Your task to perform on an android device: change the clock display to analog Image 0: 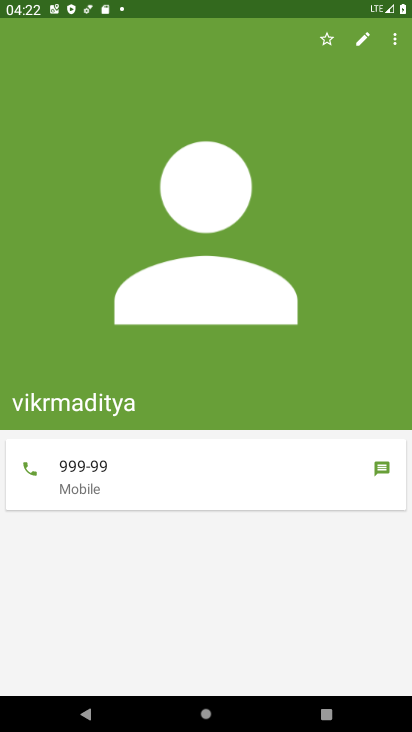
Step 0: press home button
Your task to perform on an android device: change the clock display to analog Image 1: 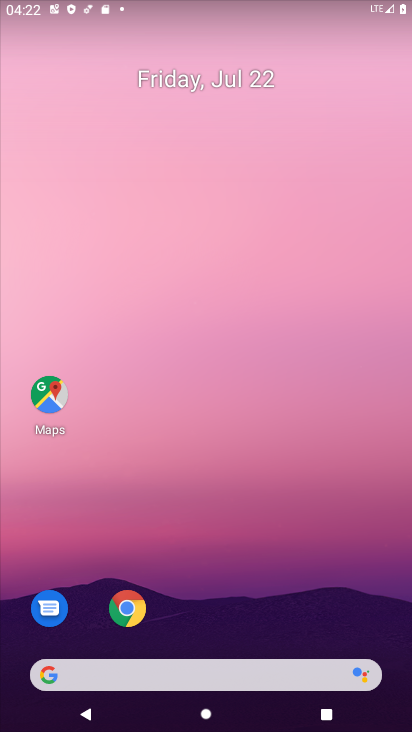
Step 1: drag from (241, 690) to (251, 186)
Your task to perform on an android device: change the clock display to analog Image 2: 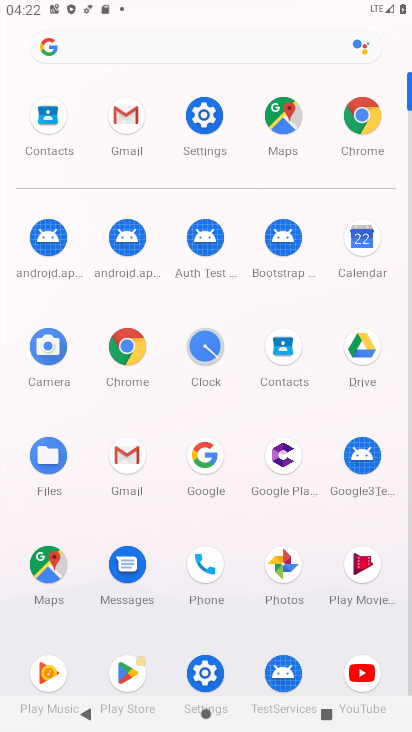
Step 2: click (204, 346)
Your task to perform on an android device: change the clock display to analog Image 3: 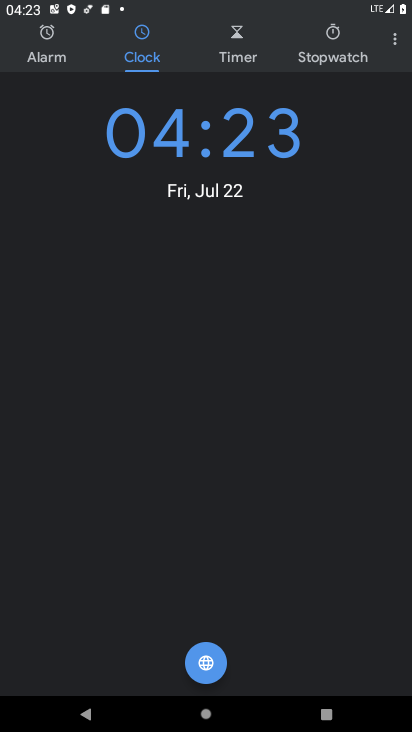
Step 3: click (396, 45)
Your task to perform on an android device: change the clock display to analog Image 4: 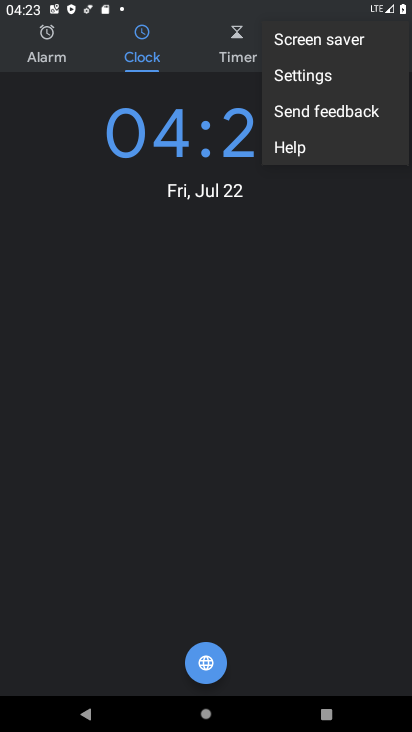
Step 4: click (324, 73)
Your task to perform on an android device: change the clock display to analog Image 5: 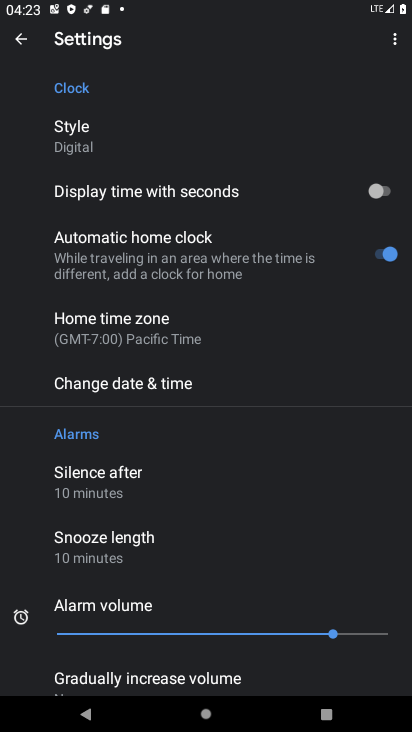
Step 5: click (78, 144)
Your task to perform on an android device: change the clock display to analog Image 6: 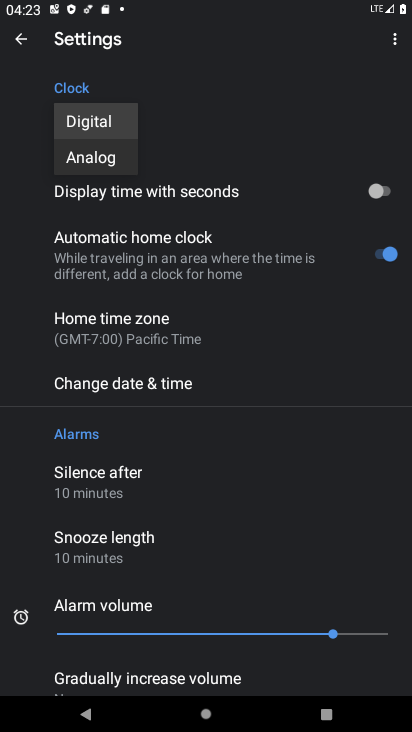
Step 6: click (85, 161)
Your task to perform on an android device: change the clock display to analog Image 7: 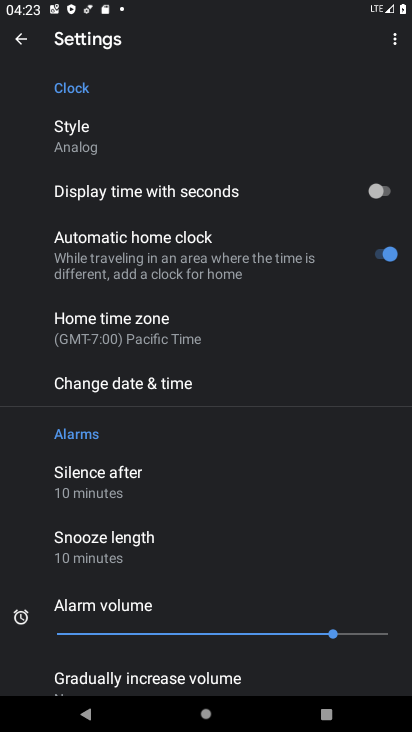
Step 7: task complete